Your task to perform on an android device: Add amazon basics triple a to the cart on bestbuy.com, then select checkout. Image 0: 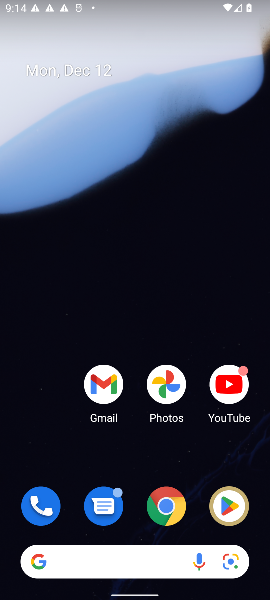
Step 0: click (123, 567)
Your task to perform on an android device: Add amazon basics triple a to the cart on bestbuy.com, then select checkout. Image 1: 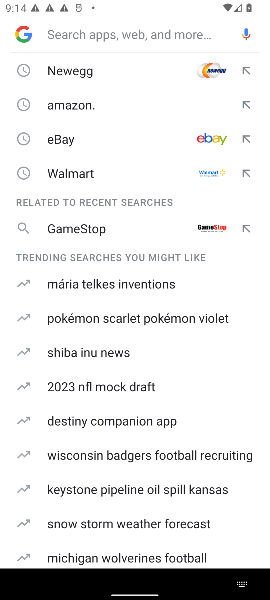
Step 1: type "bestbuy"
Your task to perform on an android device: Add amazon basics triple a to the cart on bestbuy.com, then select checkout. Image 2: 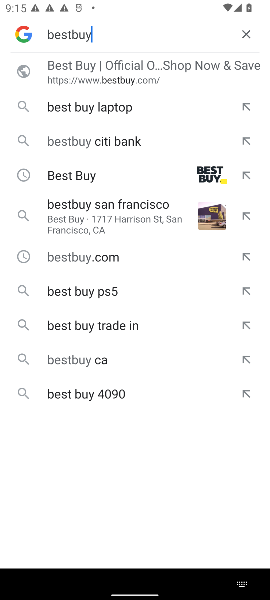
Step 2: click (113, 90)
Your task to perform on an android device: Add amazon basics triple a to the cart on bestbuy.com, then select checkout. Image 3: 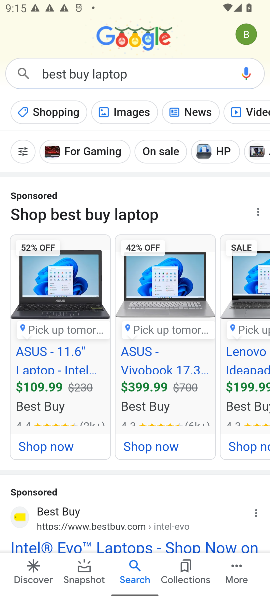
Step 3: click (44, 548)
Your task to perform on an android device: Add amazon basics triple a to the cart on bestbuy.com, then select checkout. Image 4: 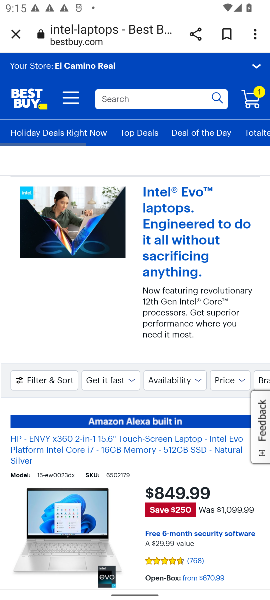
Step 4: click (120, 93)
Your task to perform on an android device: Add amazon basics triple a to the cart on bestbuy.com, then select checkout. Image 5: 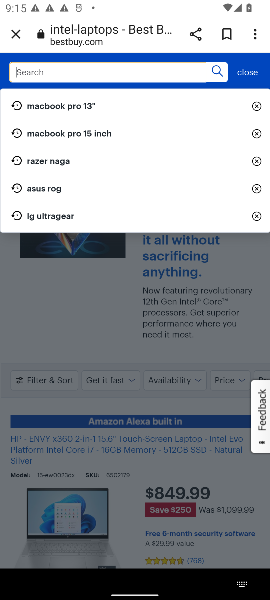
Step 5: type "basic triple a"
Your task to perform on an android device: Add amazon basics triple a to the cart on bestbuy.com, then select checkout. Image 6: 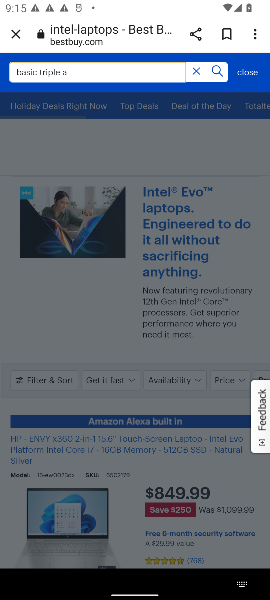
Step 6: click (213, 74)
Your task to perform on an android device: Add amazon basics triple a to the cart on bestbuy.com, then select checkout. Image 7: 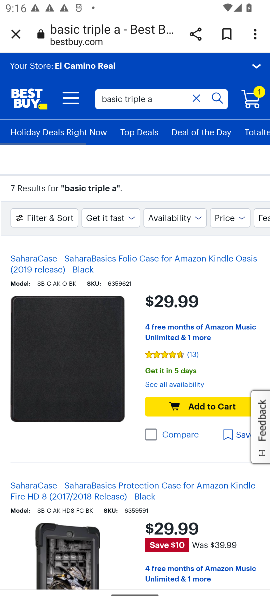
Step 7: click (215, 90)
Your task to perform on an android device: Add amazon basics triple a to the cart on bestbuy.com, then select checkout. Image 8: 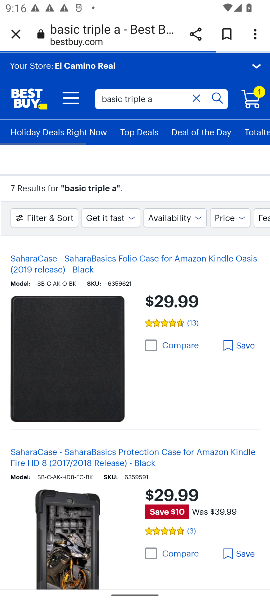
Step 8: task complete